Your task to perform on an android device: turn vacation reply on in the gmail app Image 0: 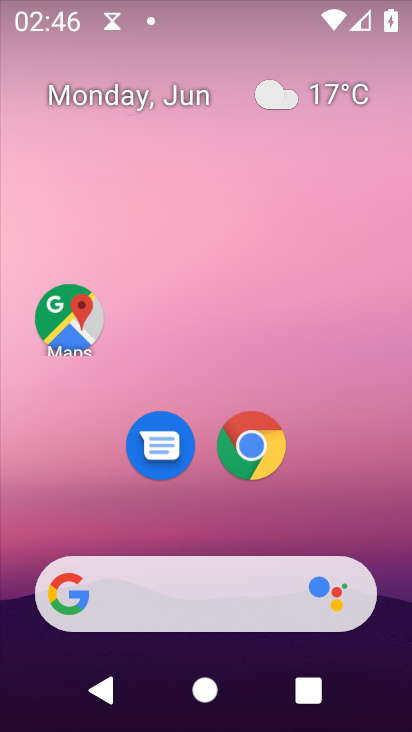
Step 0: drag from (100, 570) to (250, 74)
Your task to perform on an android device: turn vacation reply on in the gmail app Image 1: 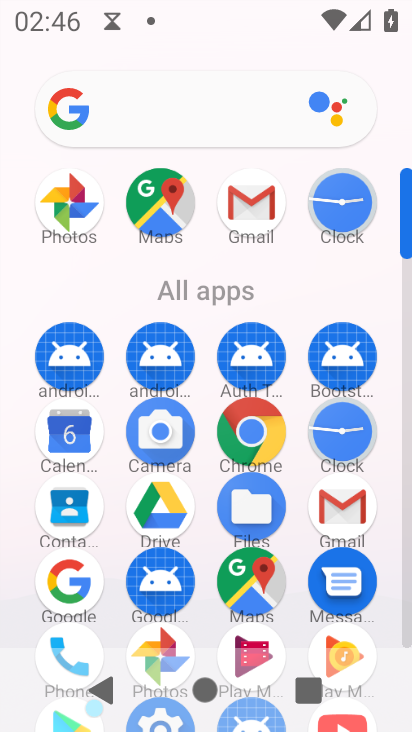
Step 1: click (348, 510)
Your task to perform on an android device: turn vacation reply on in the gmail app Image 2: 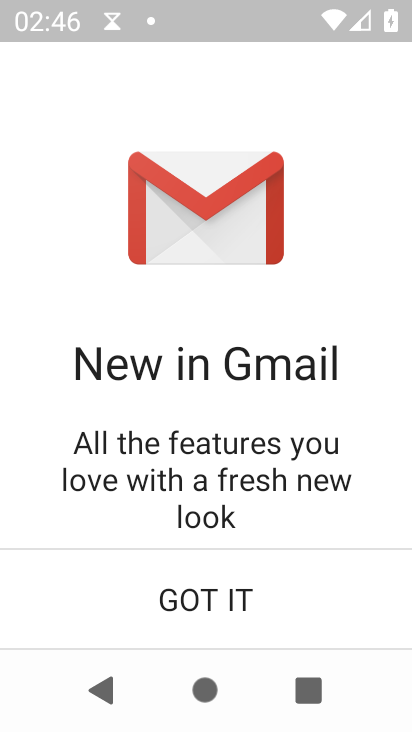
Step 2: click (250, 614)
Your task to perform on an android device: turn vacation reply on in the gmail app Image 3: 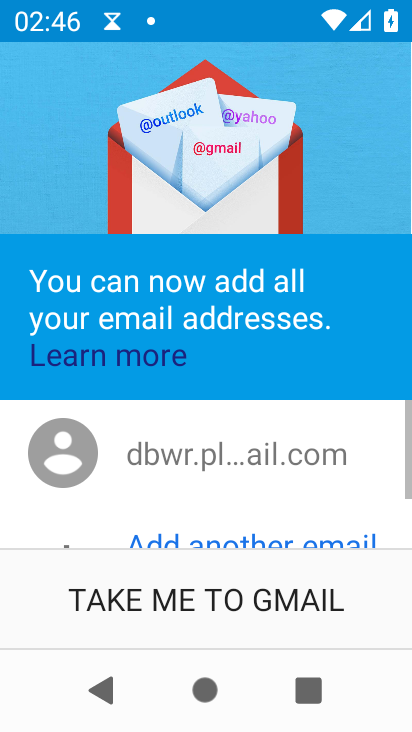
Step 3: click (250, 613)
Your task to perform on an android device: turn vacation reply on in the gmail app Image 4: 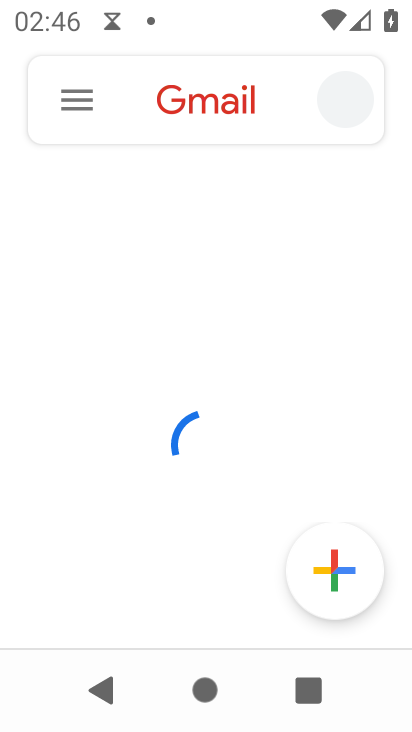
Step 4: click (97, 92)
Your task to perform on an android device: turn vacation reply on in the gmail app Image 5: 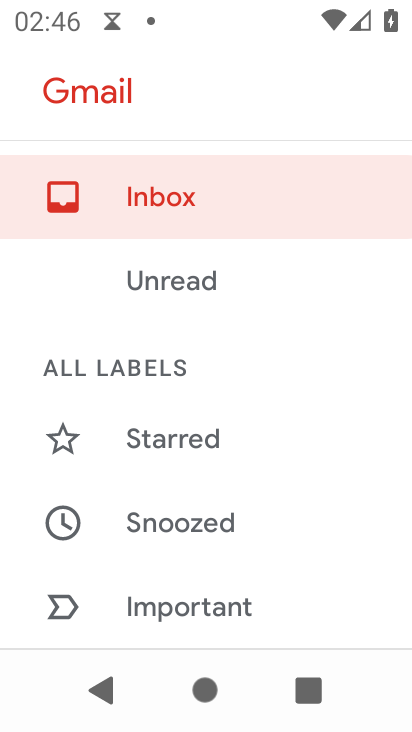
Step 5: click (221, 471)
Your task to perform on an android device: turn vacation reply on in the gmail app Image 6: 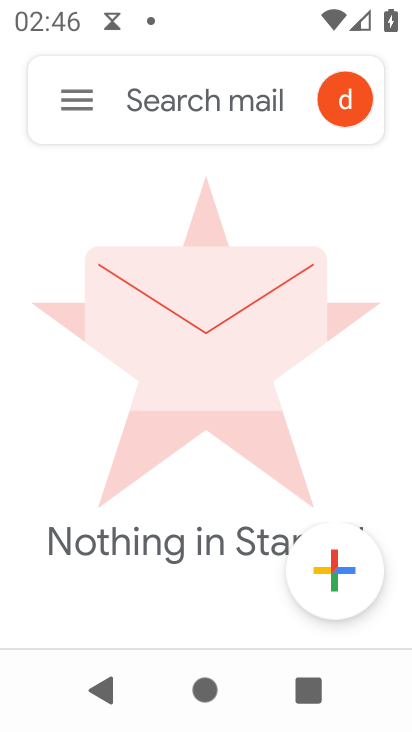
Step 6: click (79, 103)
Your task to perform on an android device: turn vacation reply on in the gmail app Image 7: 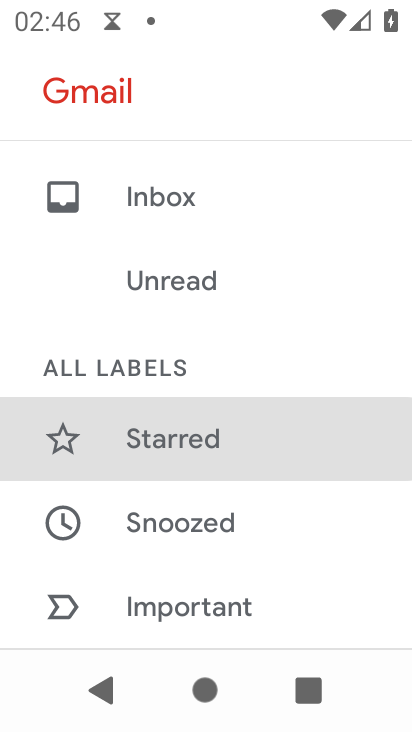
Step 7: drag from (158, 589) to (280, 125)
Your task to perform on an android device: turn vacation reply on in the gmail app Image 8: 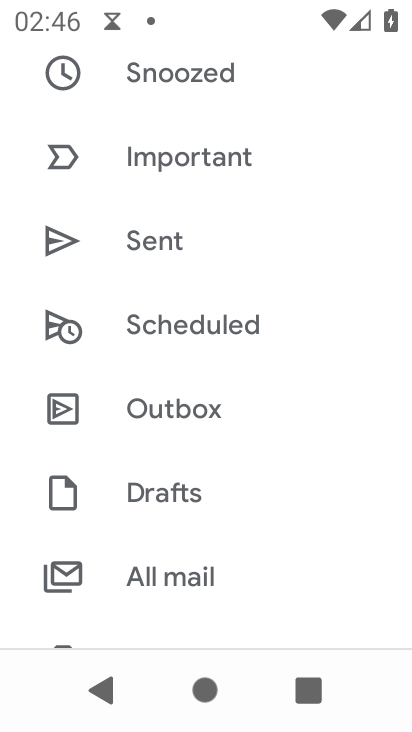
Step 8: drag from (170, 563) to (271, 219)
Your task to perform on an android device: turn vacation reply on in the gmail app Image 9: 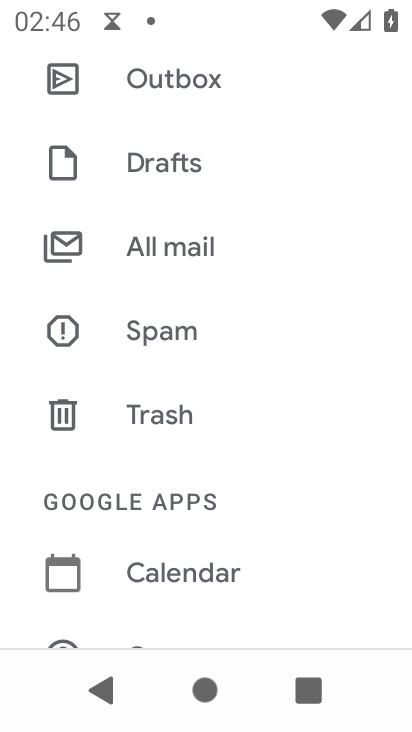
Step 9: drag from (164, 604) to (299, 219)
Your task to perform on an android device: turn vacation reply on in the gmail app Image 10: 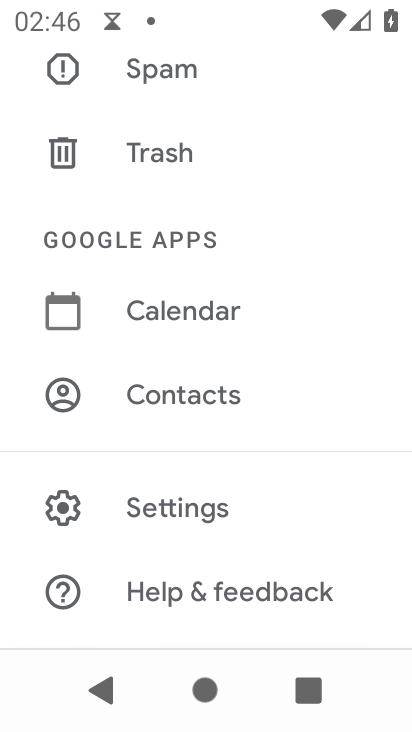
Step 10: click (187, 513)
Your task to perform on an android device: turn vacation reply on in the gmail app Image 11: 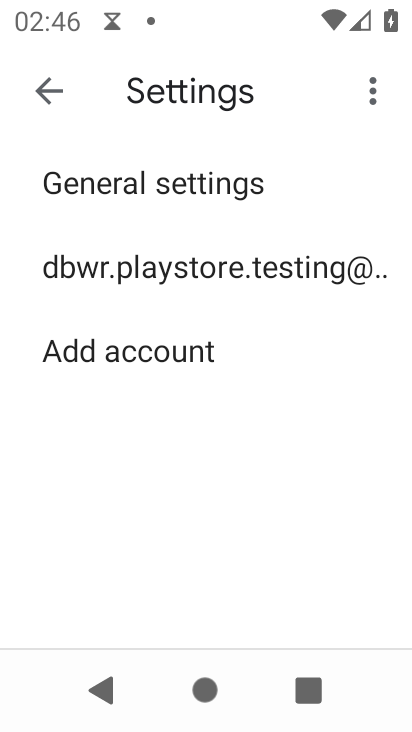
Step 11: click (299, 264)
Your task to perform on an android device: turn vacation reply on in the gmail app Image 12: 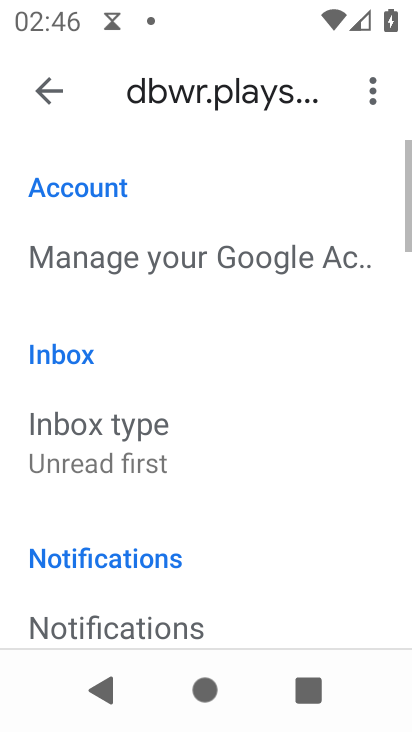
Step 12: drag from (210, 551) to (343, 150)
Your task to perform on an android device: turn vacation reply on in the gmail app Image 13: 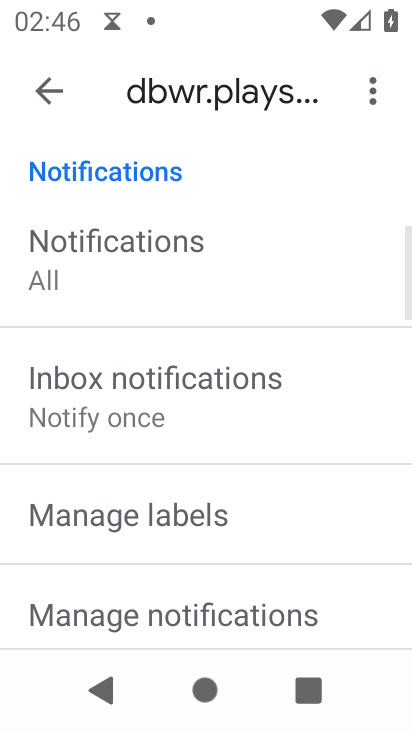
Step 13: drag from (282, 537) to (358, 214)
Your task to perform on an android device: turn vacation reply on in the gmail app Image 14: 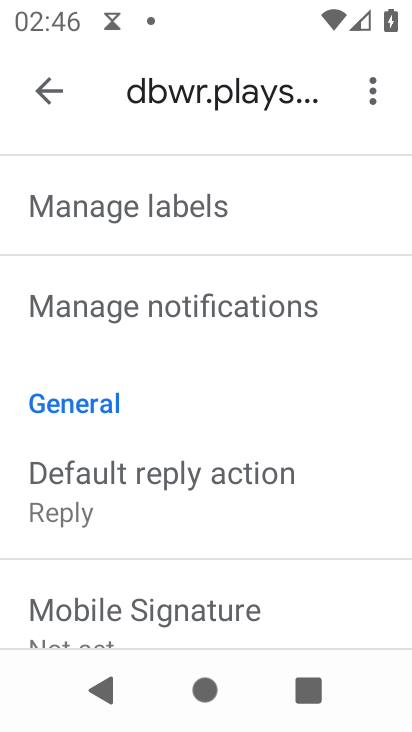
Step 14: drag from (157, 639) to (303, 180)
Your task to perform on an android device: turn vacation reply on in the gmail app Image 15: 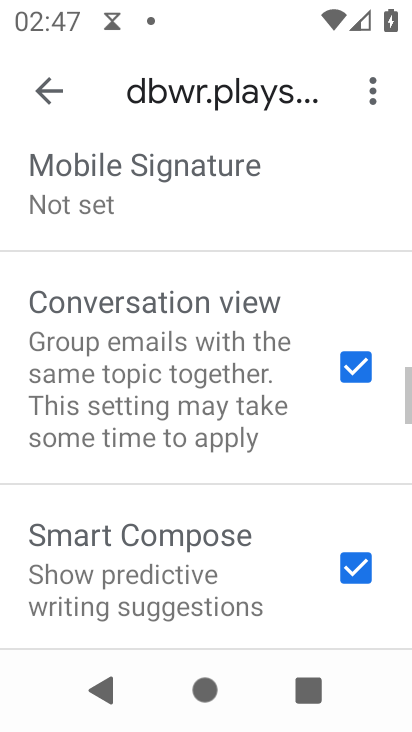
Step 15: drag from (152, 553) to (277, 169)
Your task to perform on an android device: turn vacation reply on in the gmail app Image 16: 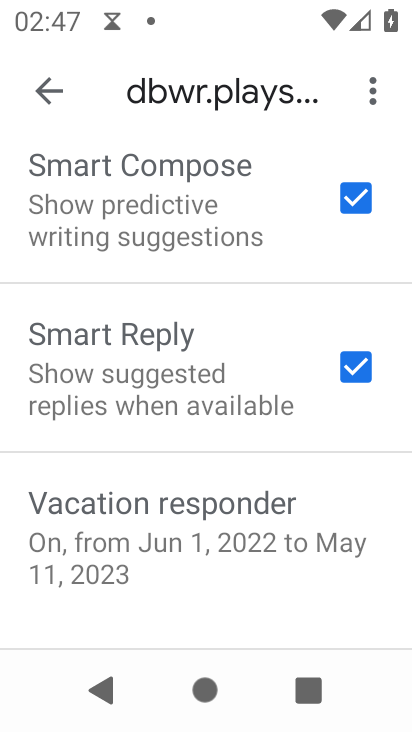
Step 16: click (160, 556)
Your task to perform on an android device: turn vacation reply on in the gmail app Image 17: 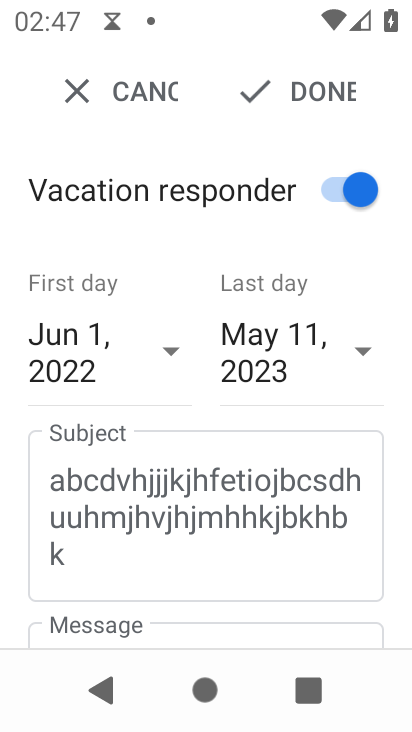
Step 17: task complete